Your task to perform on an android device: delete location history Image 0: 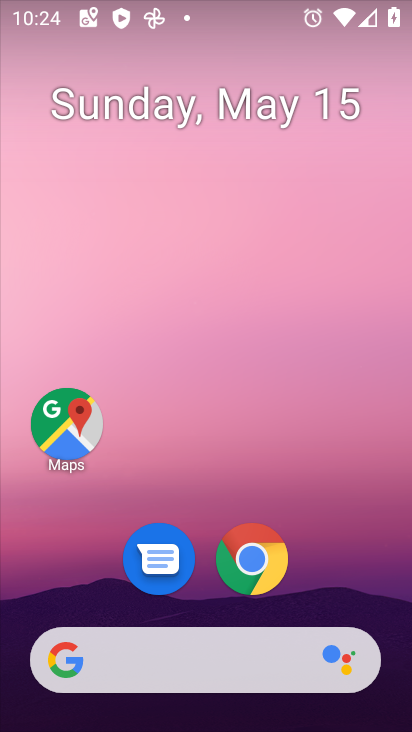
Step 0: click (275, 586)
Your task to perform on an android device: delete location history Image 1: 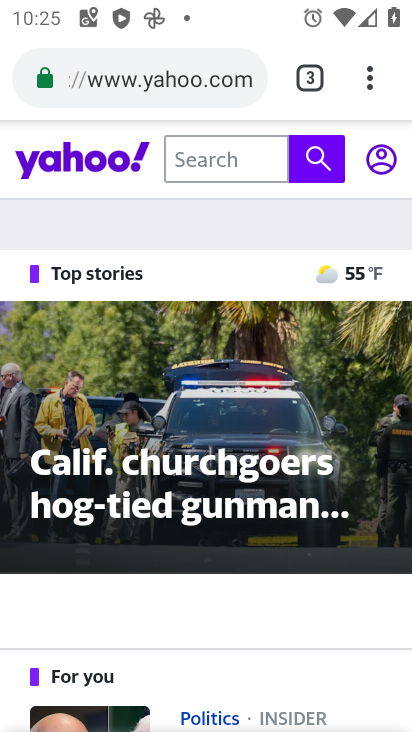
Step 1: click (369, 83)
Your task to perform on an android device: delete location history Image 2: 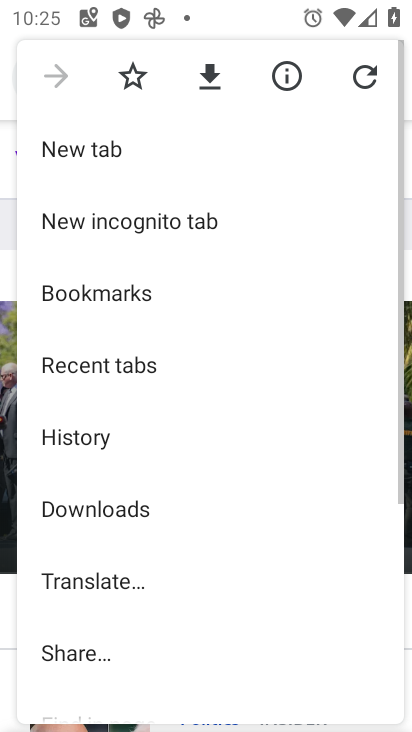
Step 2: drag from (245, 593) to (314, 140)
Your task to perform on an android device: delete location history Image 3: 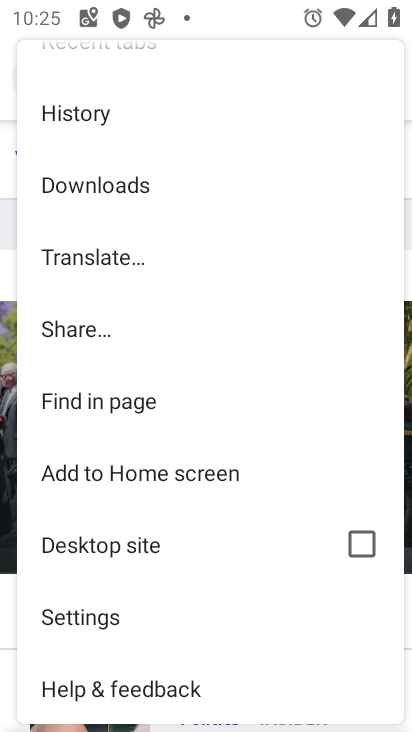
Step 3: click (140, 605)
Your task to perform on an android device: delete location history Image 4: 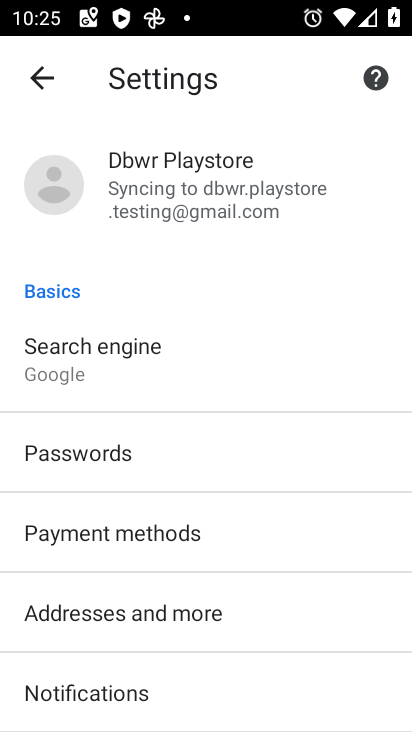
Step 4: press home button
Your task to perform on an android device: delete location history Image 5: 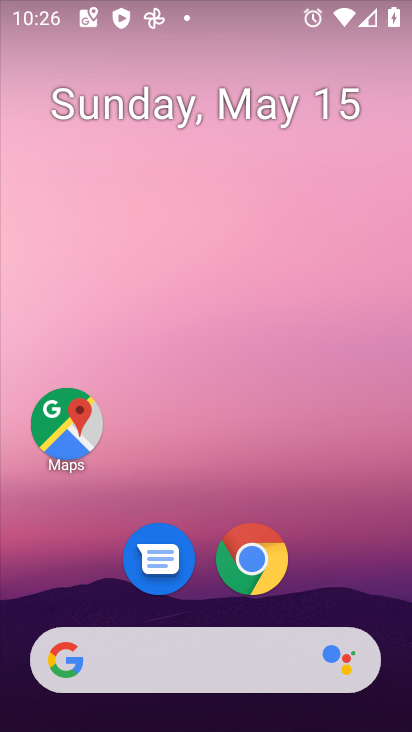
Step 5: drag from (329, 576) to (293, 133)
Your task to perform on an android device: delete location history Image 6: 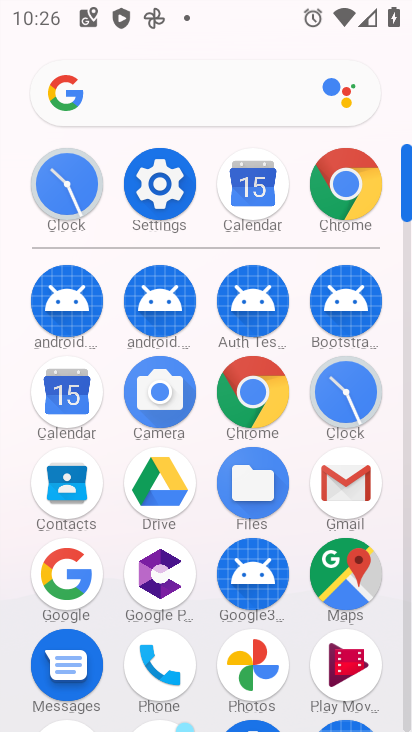
Step 6: click (157, 205)
Your task to perform on an android device: delete location history Image 7: 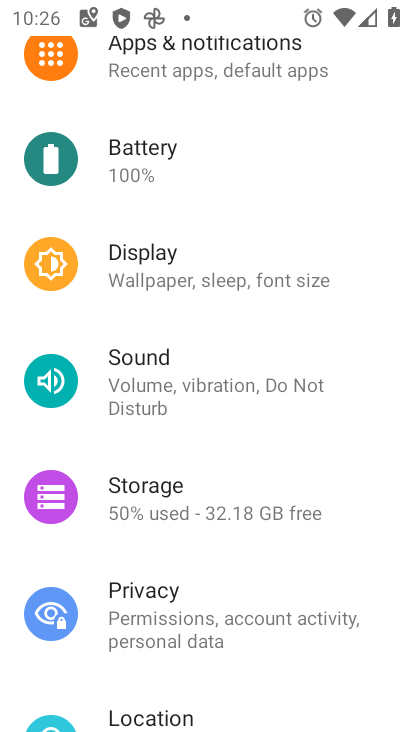
Step 7: click (180, 679)
Your task to perform on an android device: delete location history Image 8: 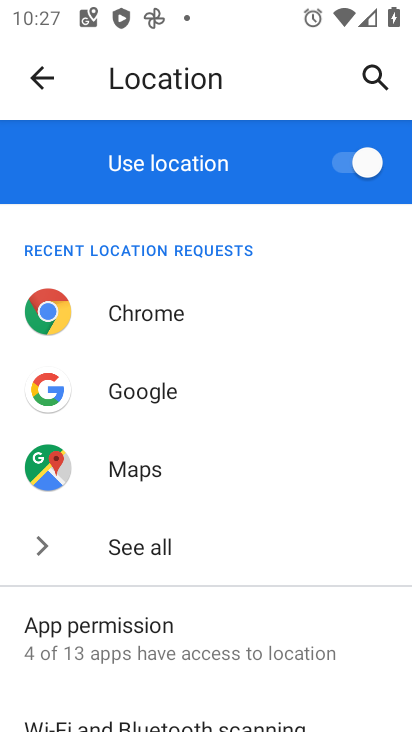
Step 8: drag from (219, 668) to (260, 224)
Your task to perform on an android device: delete location history Image 9: 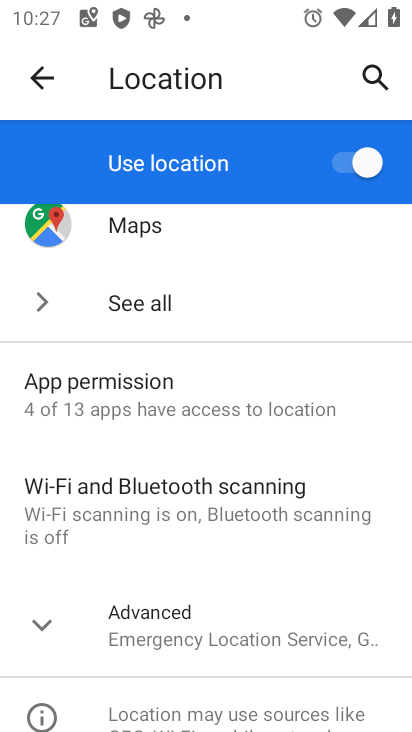
Step 9: click (217, 624)
Your task to perform on an android device: delete location history Image 10: 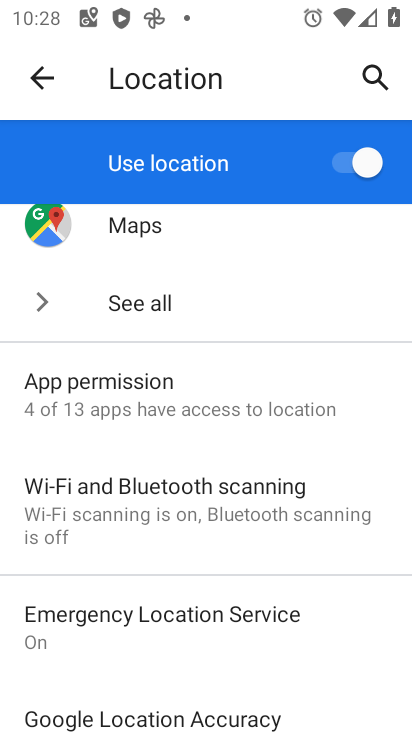
Step 10: click (205, 695)
Your task to perform on an android device: delete location history Image 11: 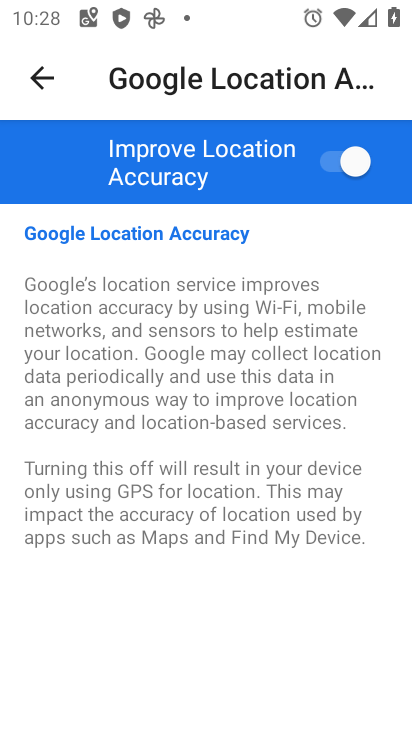
Step 11: click (35, 74)
Your task to perform on an android device: delete location history Image 12: 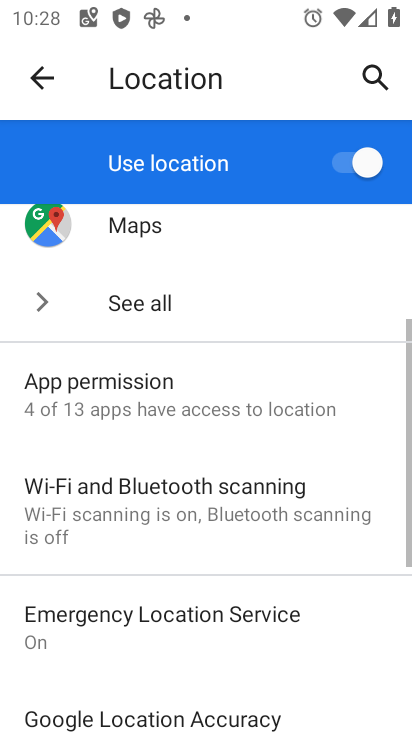
Step 12: drag from (251, 619) to (277, 372)
Your task to perform on an android device: delete location history Image 13: 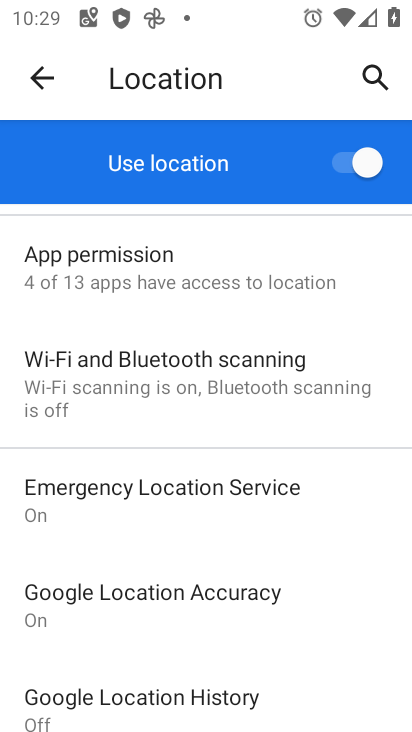
Step 13: click (250, 675)
Your task to perform on an android device: delete location history Image 14: 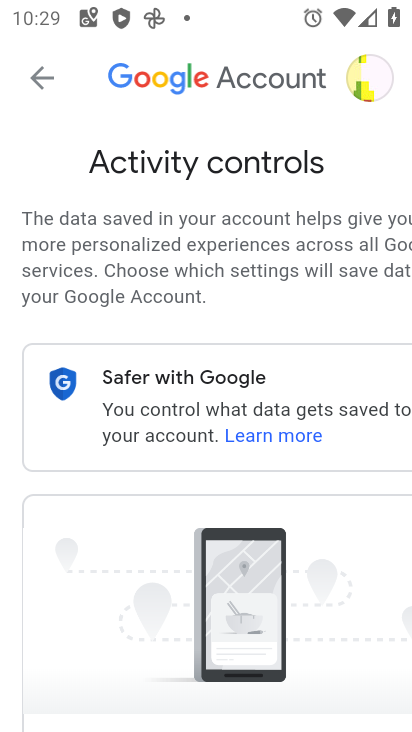
Step 14: drag from (254, 543) to (333, 60)
Your task to perform on an android device: delete location history Image 15: 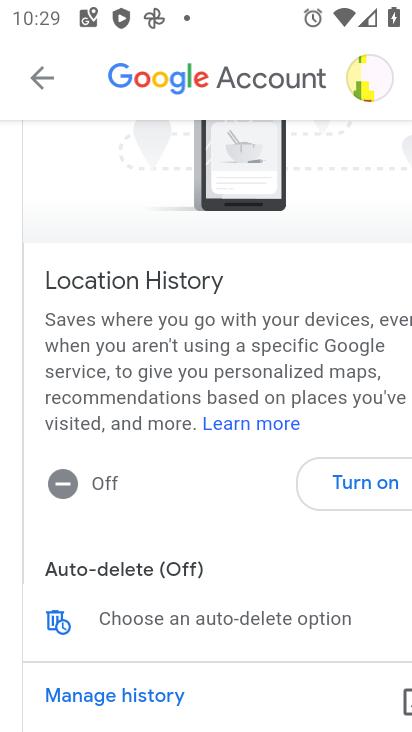
Step 15: click (228, 690)
Your task to perform on an android device: delete location history Image 16: 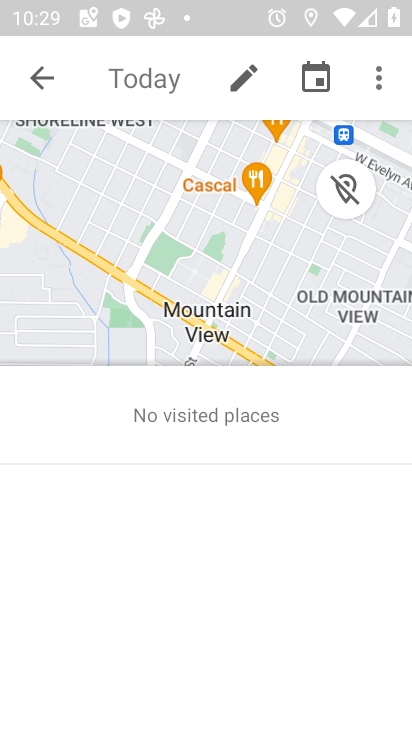
Step 16: task complete